Your task to perform on an android device: Open Yahoo.com Image 0: 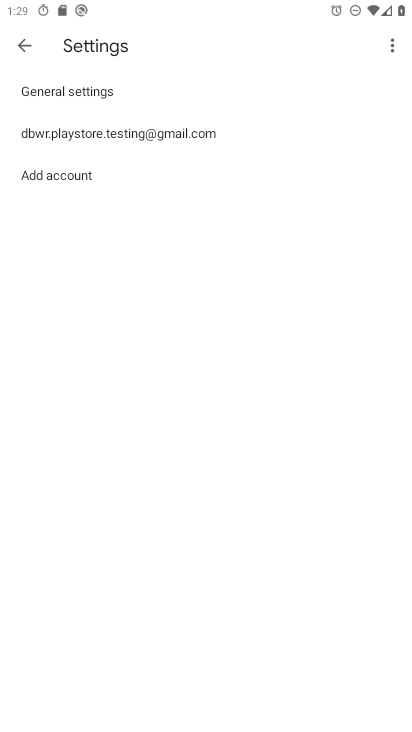
Step 0: press home button
Your task to perform on an android device: Open Yahoo.com Image 1: 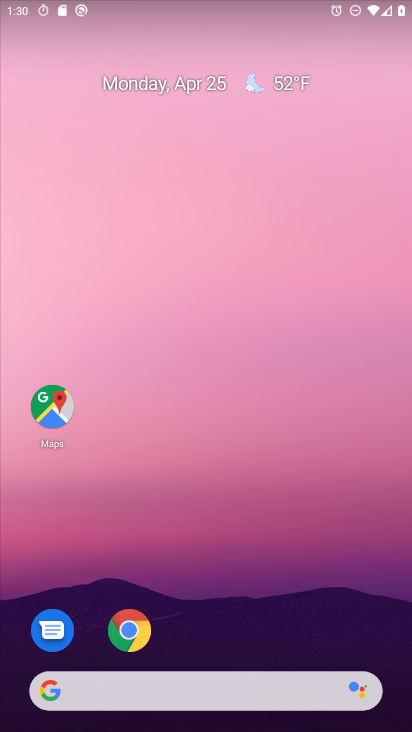
Step 1: drag from (206, 641) to (280, 222)
Your task to perform on an android device: Open Yahoo.com Image 2: 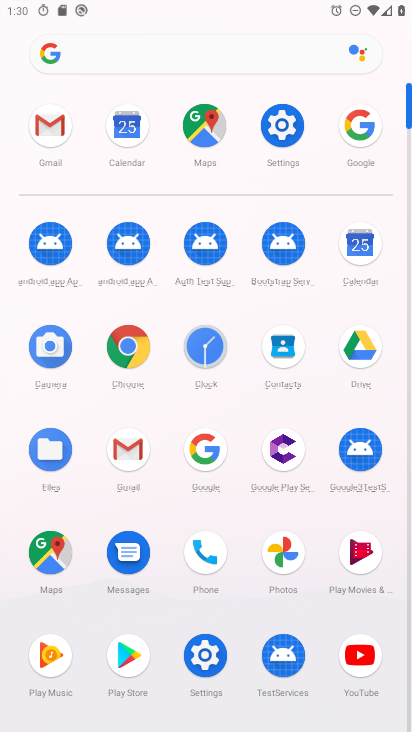
Step 2: click (229, 49)
Your task to perform on an android device: Open Yahoo.com Image 3: 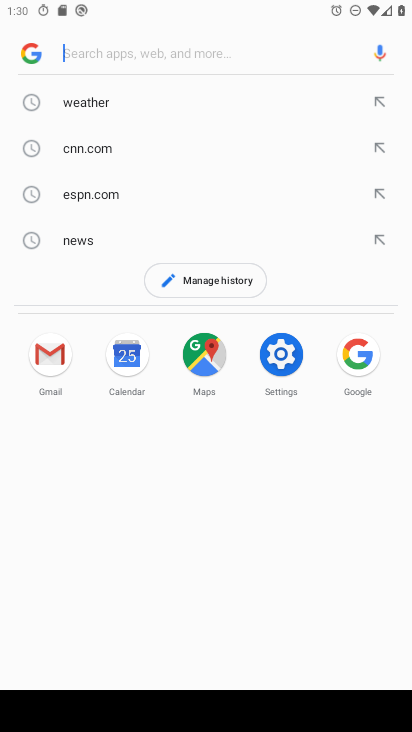
Step 3: type "yahoo.com"
Your task to perform on an android device: Open Yahoo.com Image 4: 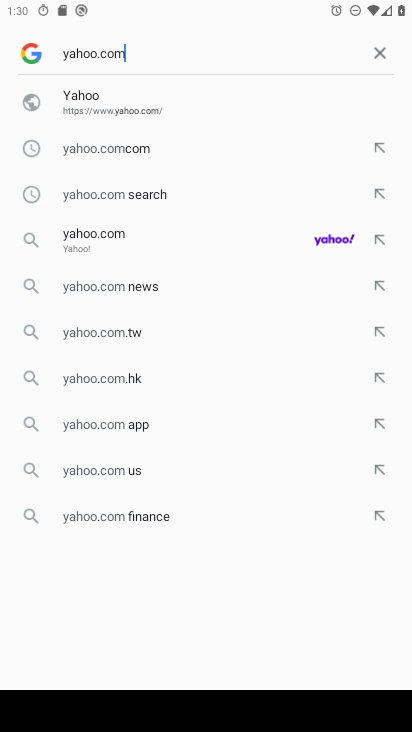
Step 4: click (75, 239)
Your task to perform on an android device: Open Yahoo.com Image 5: 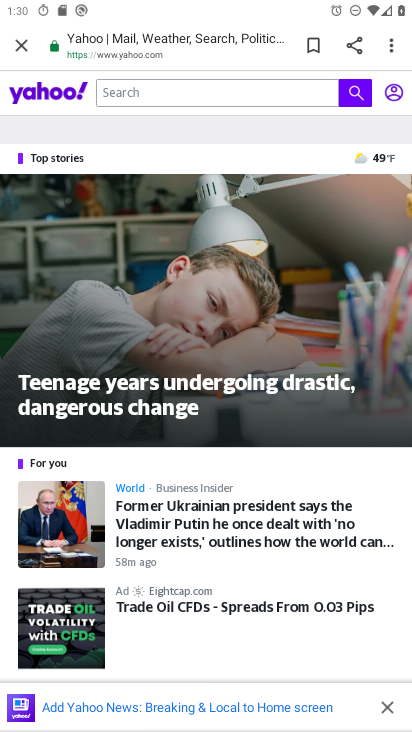
Step 5: task complete